Your task to perform on an android device: see tabs open on other devices in the chrome app Image 0: 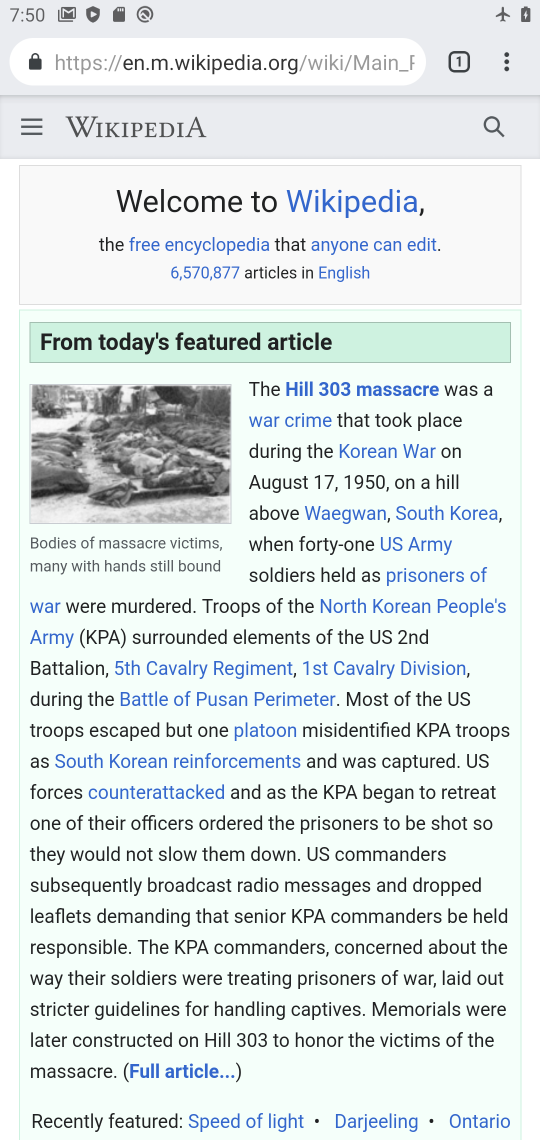
Step 0: press home button
Your task to perform on an android device: see tabs open on other devices in the chrome app Image 1: 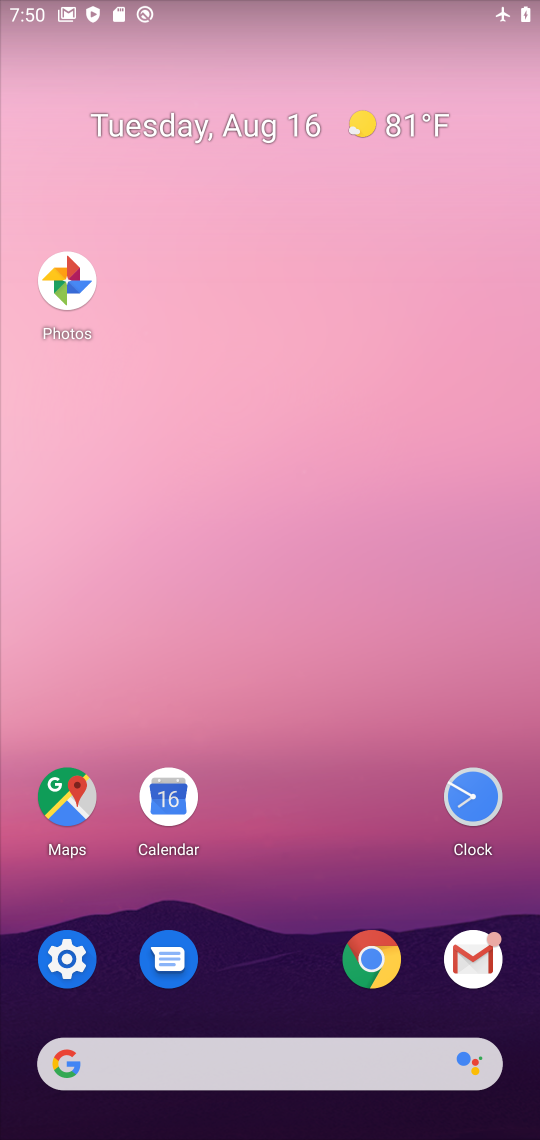
Step 1: click (374, 957)
Your task to perform on an android device: see tabs open on other devices in the chrome app Image 2: 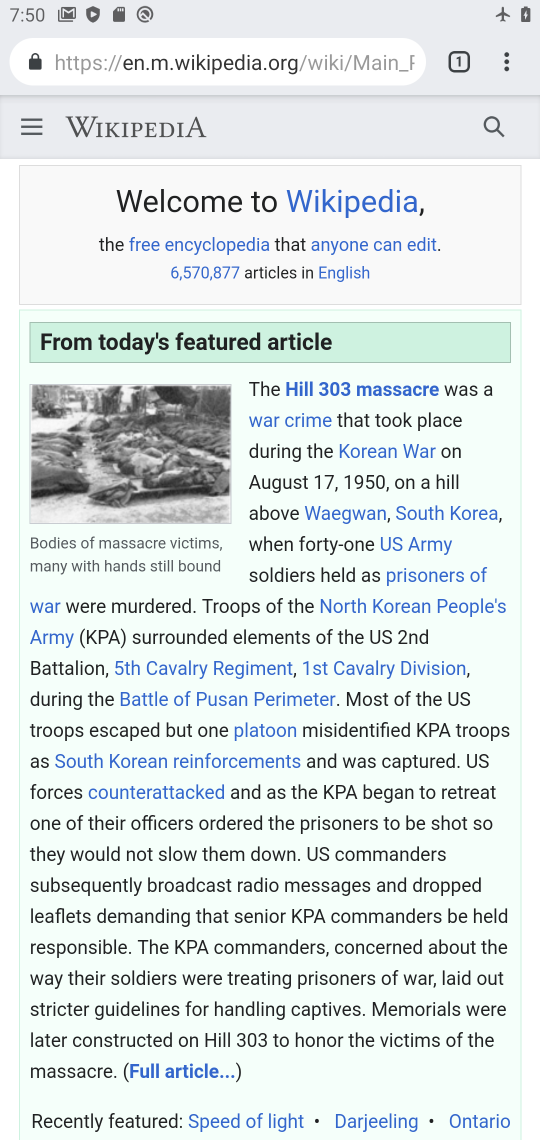
Step 2: click (510, 46)
Your task to perform on an android device: see tabs open on other devices in the chrome app Image 3: 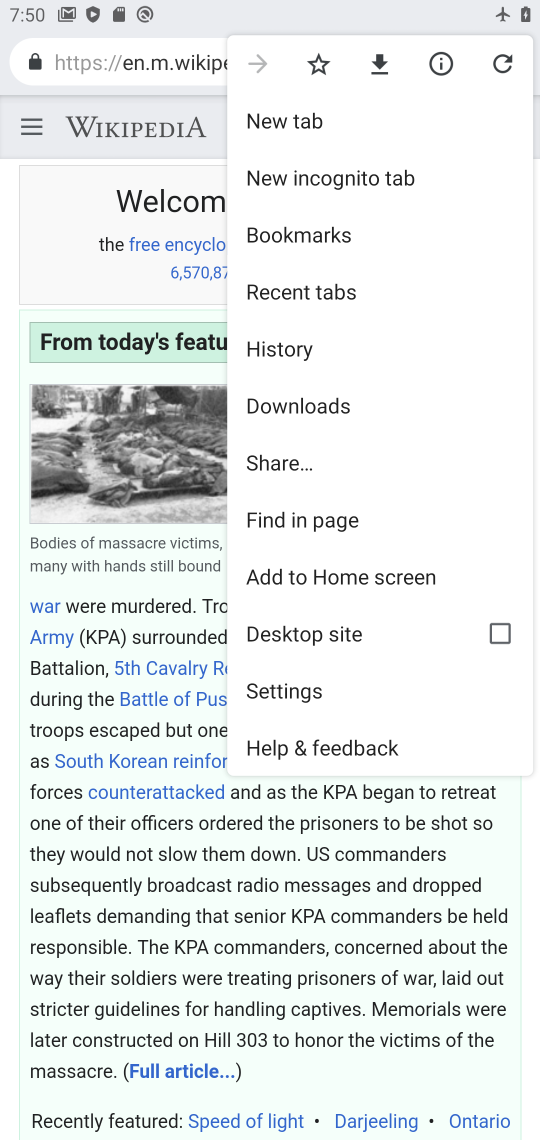
Step 3: click (321, 289)
Your task to perform on an android device: see tabs open on other devices in the chrome app Image 4: 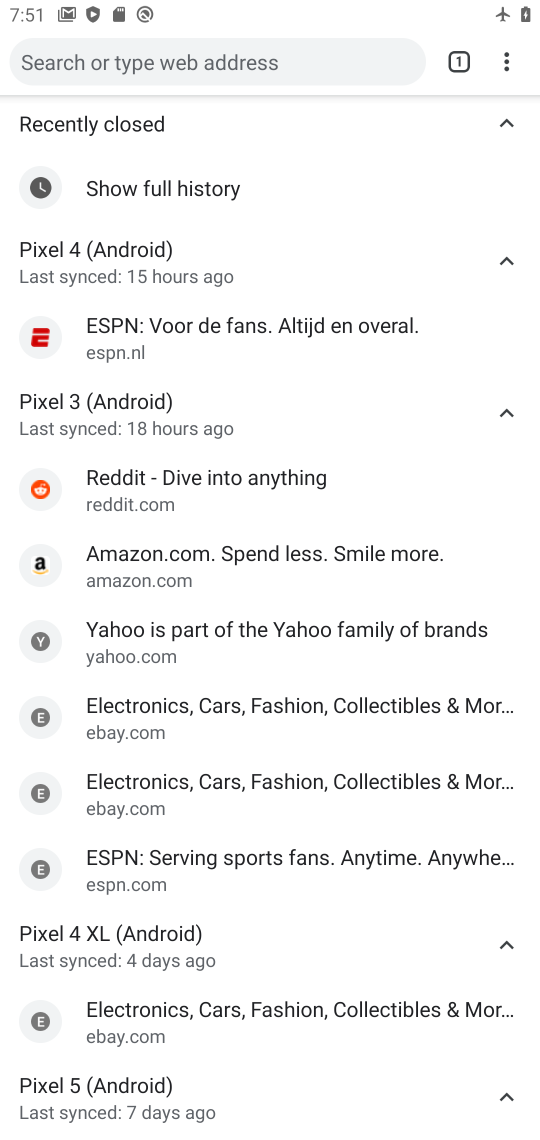
Step 4: task complete